Your task to perform on an android device: Go to internet settings Image 0: 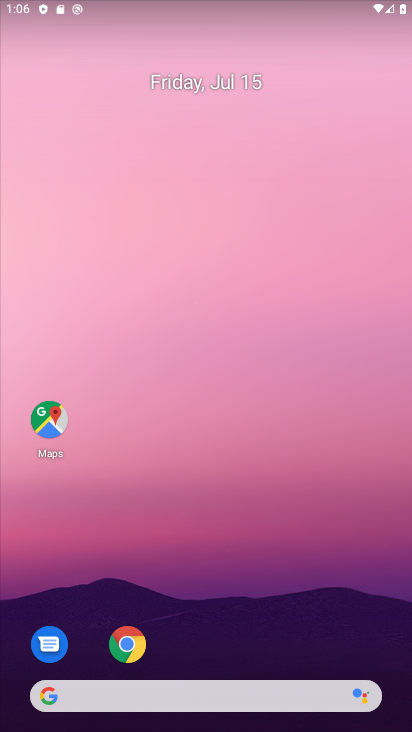
Step 0: drag from (397, 594) to (307, 18)
Your task to perform on an android device: Go to internet settings Image 1: 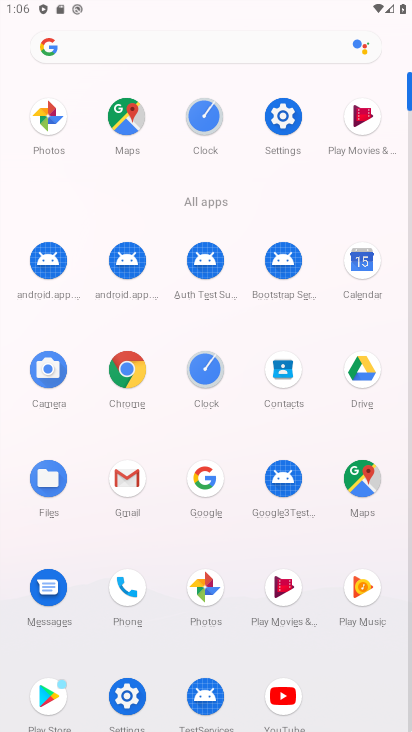
Step 1: click (267, 174)
Your task to perform on an android device: Go to internet settings Image 2: 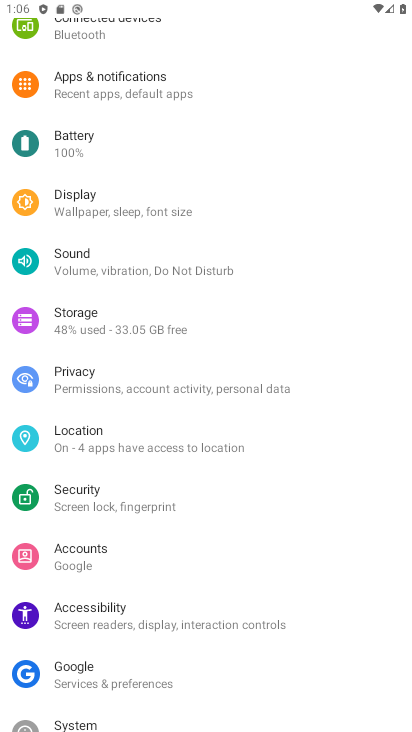
Step 2: drag from (214, 117) to (223, 538)
Your task to perform on an android device: Go to internet settings Image 3: 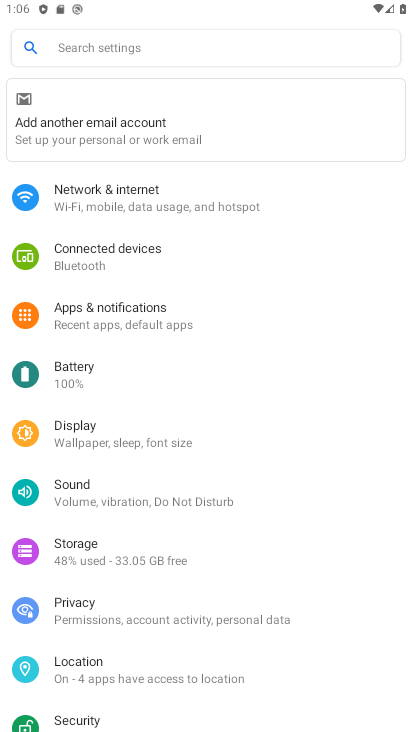
Step 3: click (142, 202)
Your task to perform on an android device: Go to internet settings Image 4: 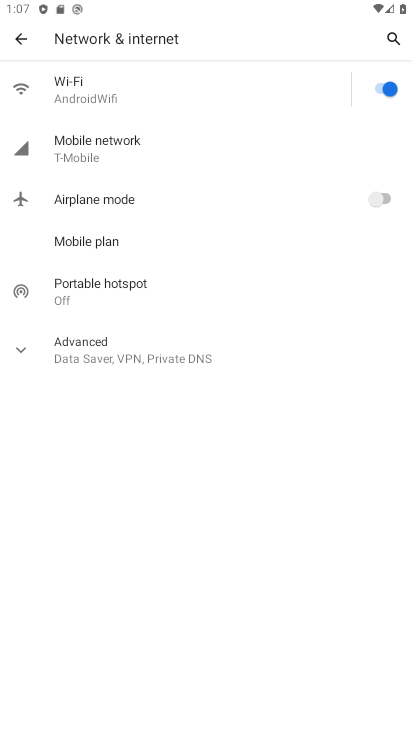
Step 4: click (22, 350)
Your task to perform on an android device: Go to internet settings Image 5: 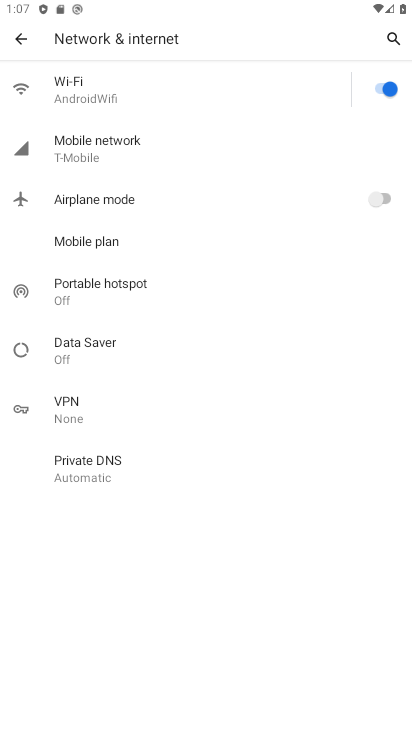
Step 5: click (112, 145)
Your task to perform on an android device: Go to internet settings Image 6: 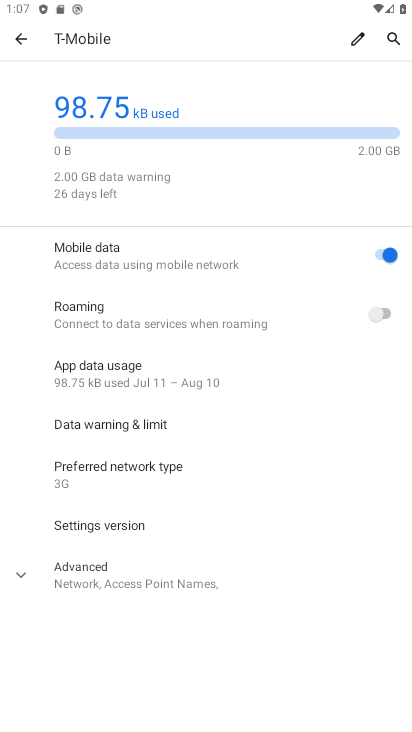
Step 6: drag from (288, 545) to (247, 222)
Your task to perform on an android device: Go to internet settings Image 7: 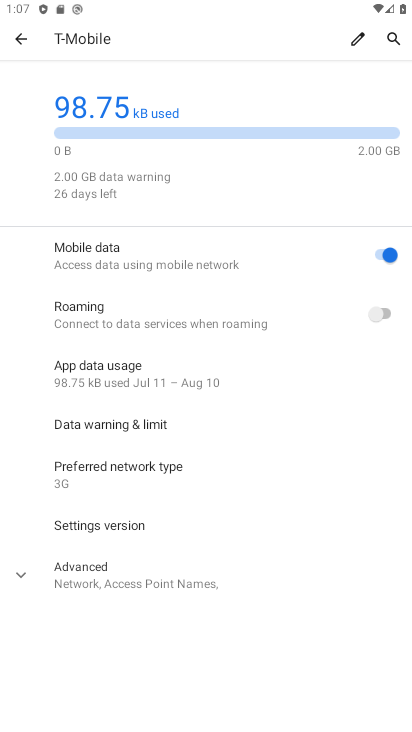
Step 7: click (19, 573)
Your task to perform on an android device: Go to internet settings Image 8: 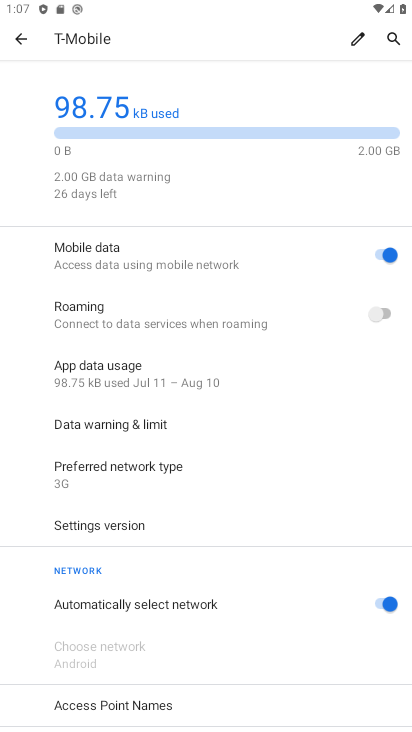
Step 8: task complete